Your task to perform on an android device: What is the recent news? Image 0: 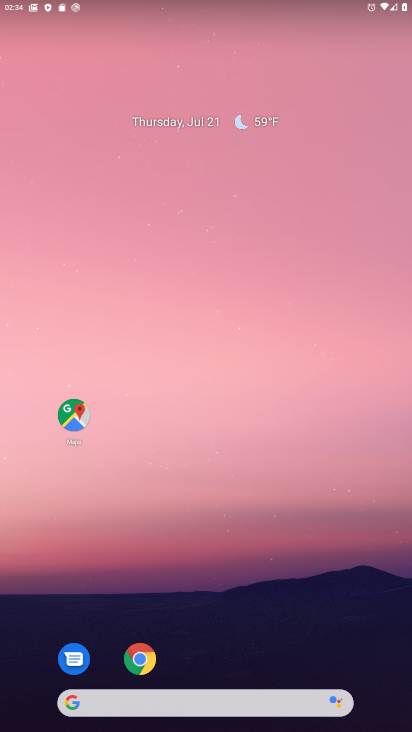
Step 0: drag from (274, 535) to (257, 101)
Your task to perform on an android device: What is the recent news? Image 1: 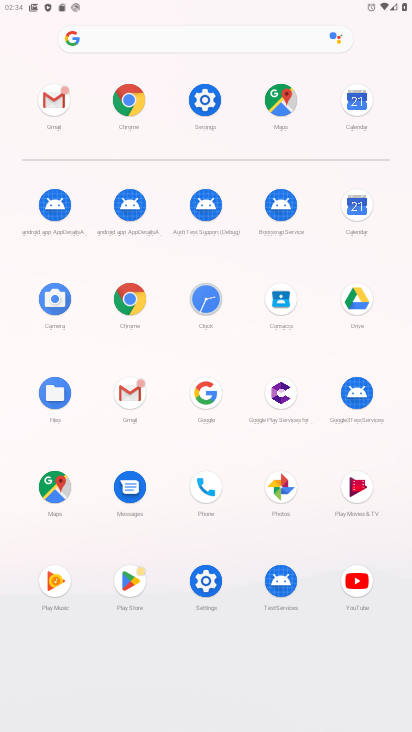
Step 1: click (129, 105)
Your task to perform on an android device: What is the recent news? Image 2: 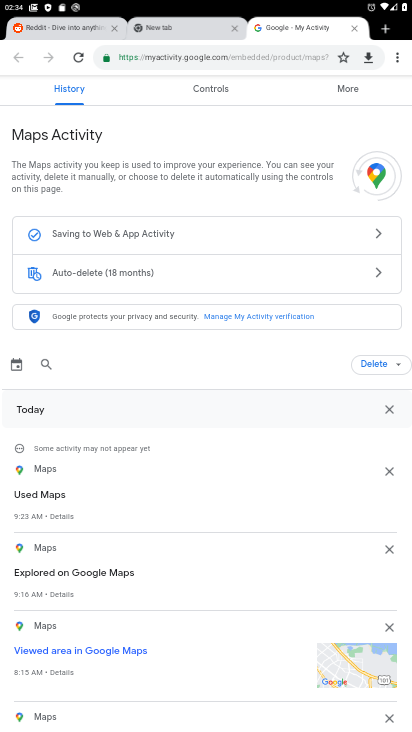
Step 2: click (168, 59)
Your task to perform on an android device: What is the recent news? Image 3: 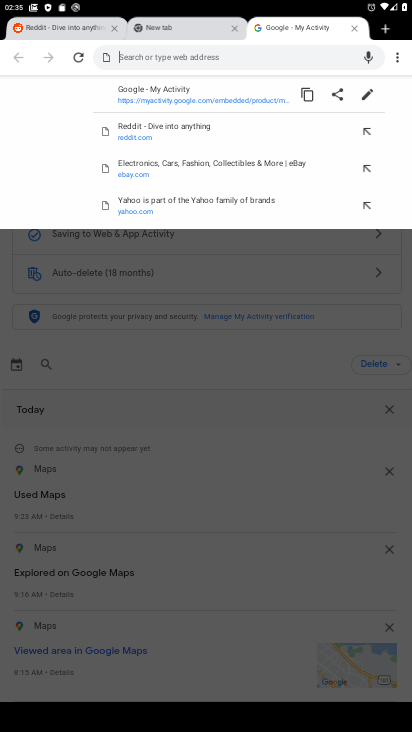
Step 3: type "news"
Your task to perform on an android device: What is the recent news? Image 4: 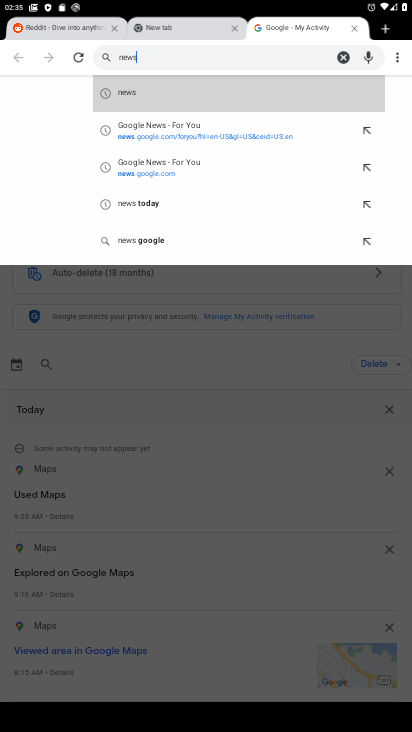
Step 4: click (147, 94)
Your task to perform on an android device: What is the recent news? Image 5: 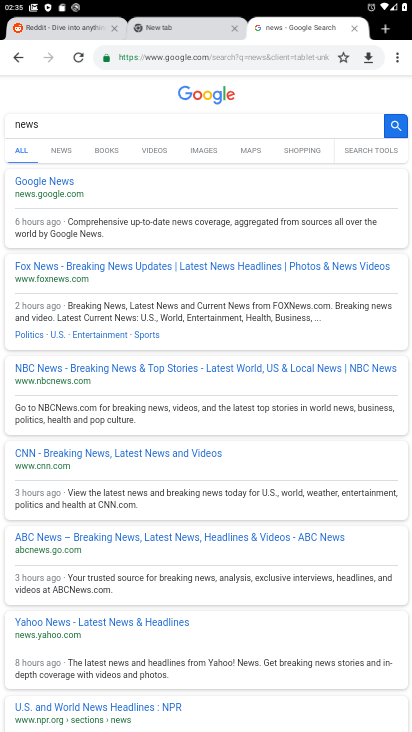
Step 5: click (54, 184)
Your task to perform on an android device: What is the recent news? Image 6: 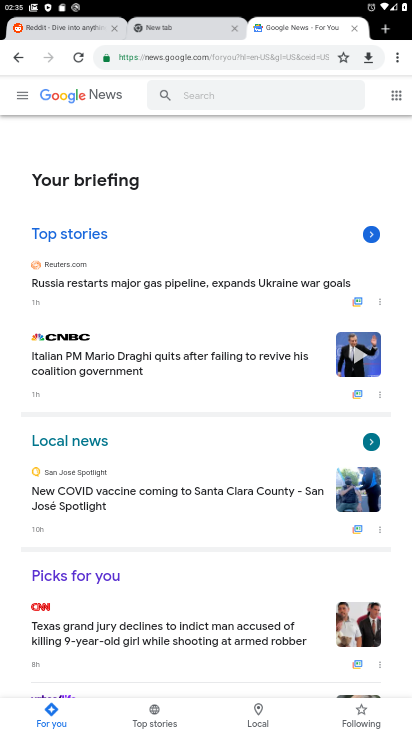
Step 6: task complete